Your task to perform on an android device: Do I have any events today? Image 0: 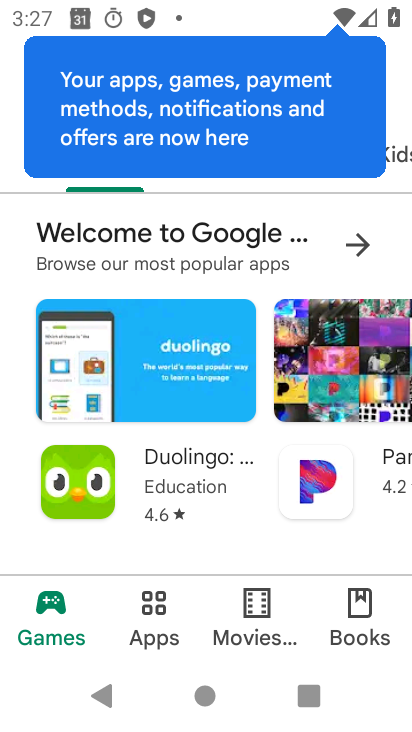
Step 0: press home button
Your task to perform on an android device: Do I have any events today? Image 1: 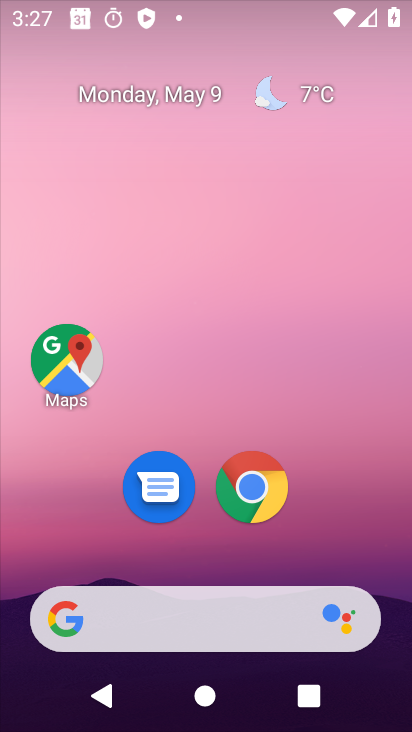
Step 1: drag from (201, 621) to (188, 98)
Your task to perform on an android device: Do I have any events today? Image 2: 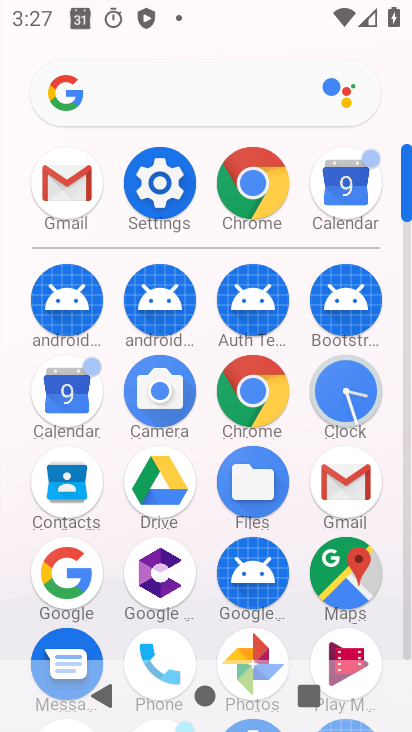
Step 2: click (56, 382)
Your task to perform on an android device: Do I have any events today? Image 3: 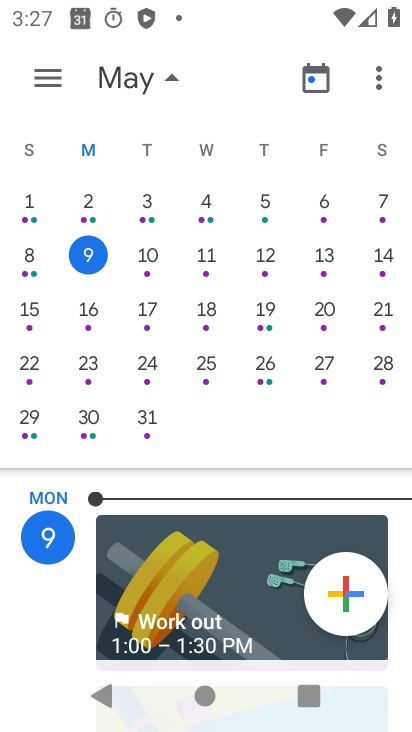
Step 3: click (47, 84)
Your task to perform on an android device: Do I have any events today? Image 4: 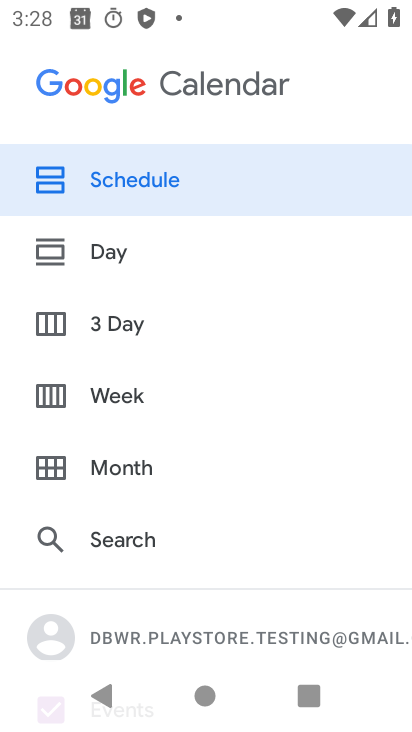
Step 4: task complete